Your task to perform on an android device: Open settings Image 0: 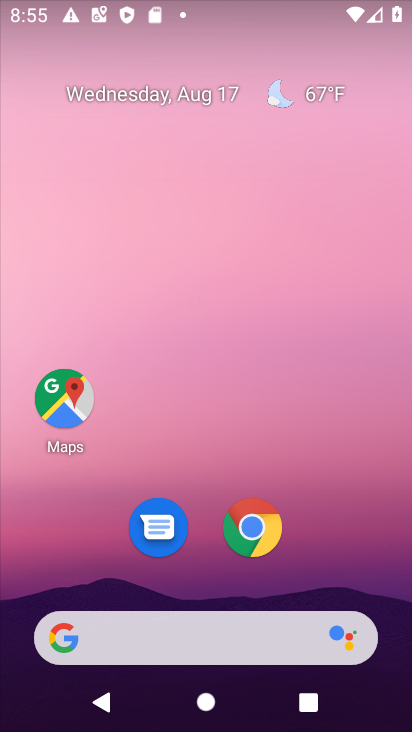
Step 0: drag from (202, 591) to (220, 70)
Your task to perform on an android device: Open settings Image 1: 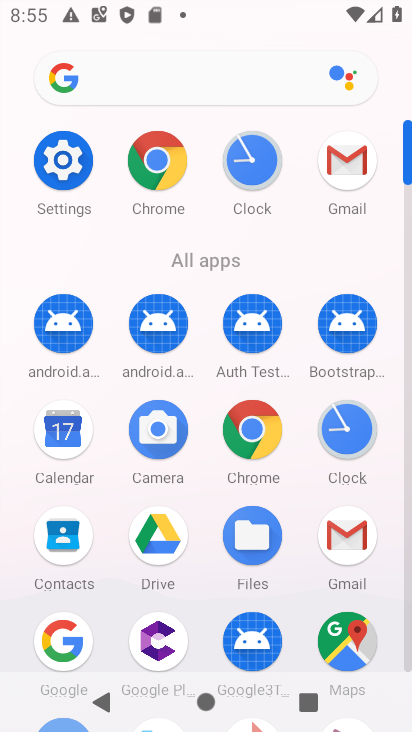
Step 1: click (61, 183)
Your task to perform on an android device: Open settings Image 2: 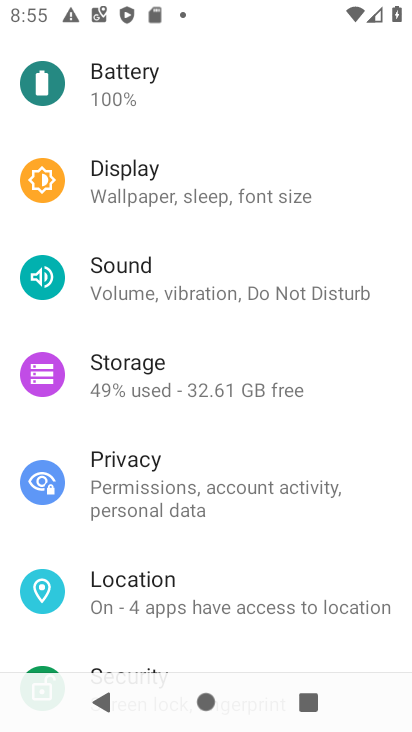
Step 2: task complete